Your task to perform on an android device: Open Youtube and go to "Your channel" Image 0: 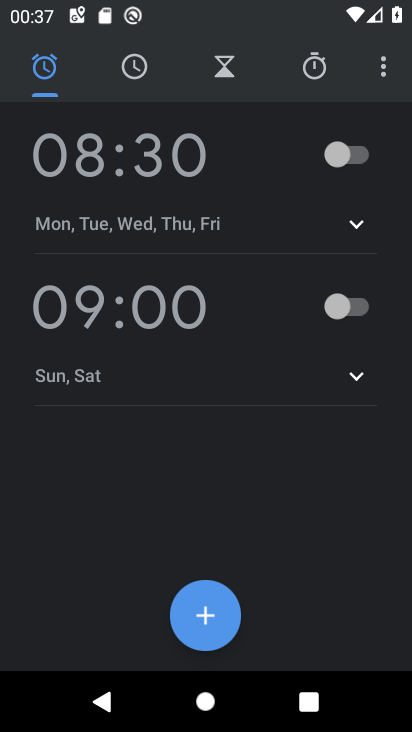
Step 0: press home button
Your task to perform on an android device: Open Youtube and go to "Your channel" Image 1: 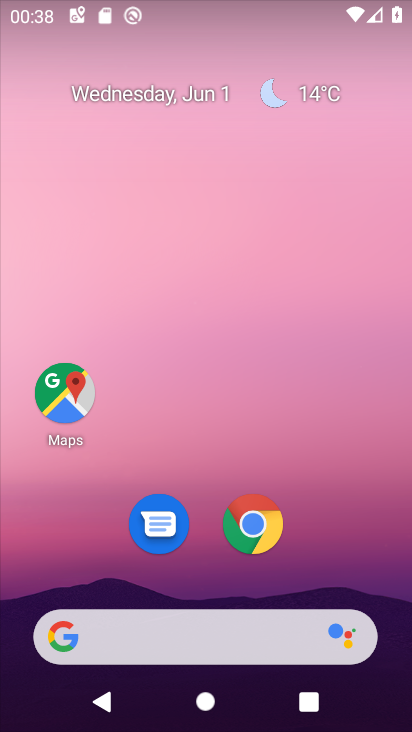
Step 1: drag from (328, 554) to (258, 16)
Your task to perform on an android device: Open Youtube and go to "Your channel" Image 2: 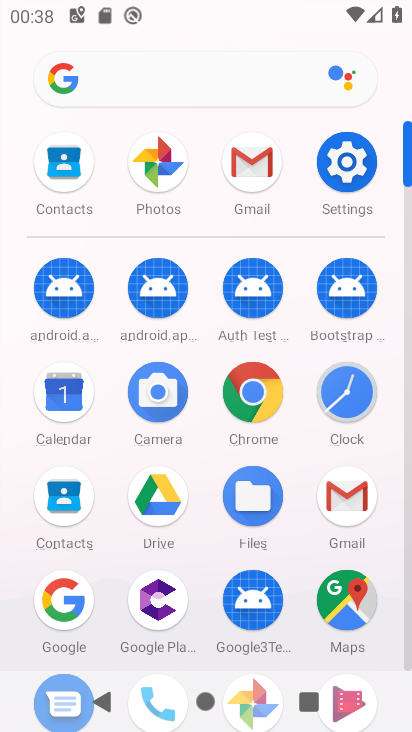
Step 2: drag from (209, 482) to (176, 36)
Your task to perform on an android device: Open Youtube and go to "Your channel" Image 3: 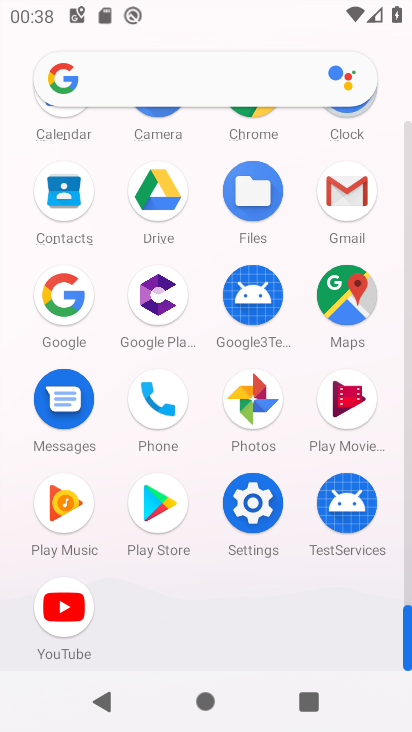
Step 3: click (64, 584)
Your task to perform on an android device: Open Youtube and go to "Your channel" Image 4: 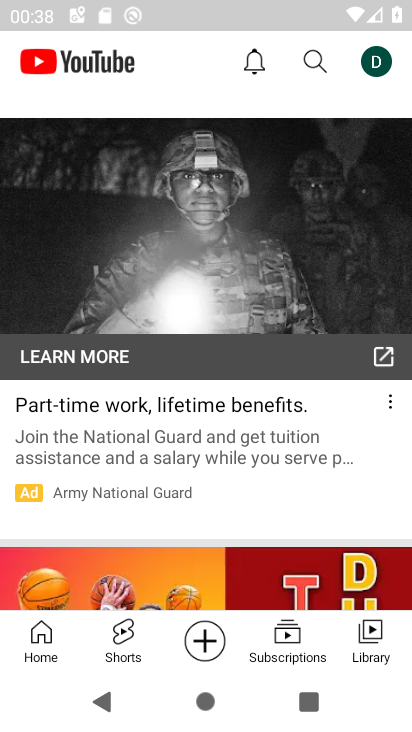
Step 4: click (371, 57)
Your task to perform on an android device: Open Youtube and go to "Your channel" Image 5: 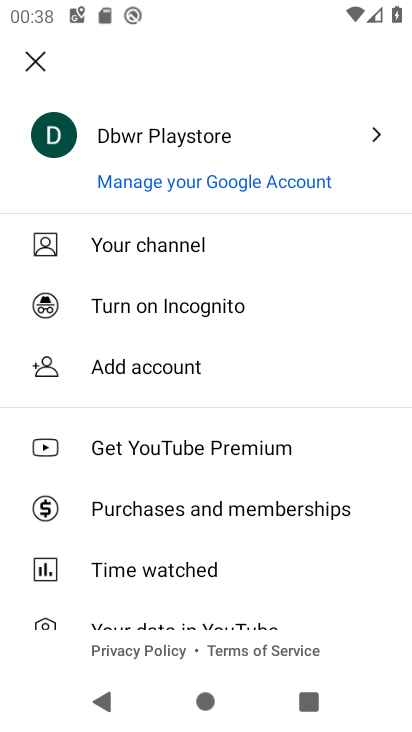
Step 5: click (203, 249)
Your task to perform on an android device: Open Youtube and go to "Your channel" Image 6: 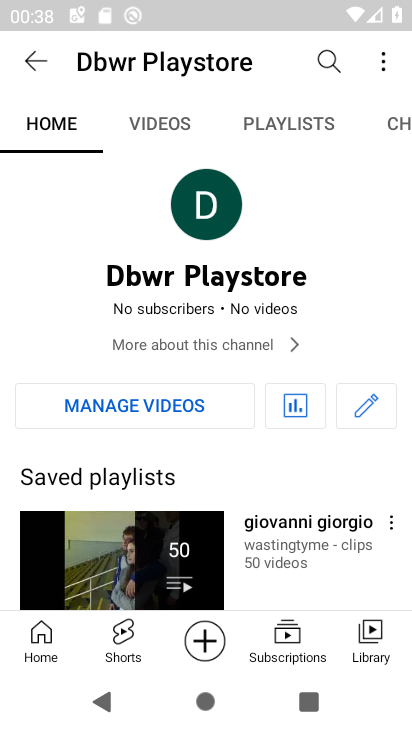
Step 6: task complete